Your task to perform on an android device: see tabs open on other devices in the chrome app Image 0: 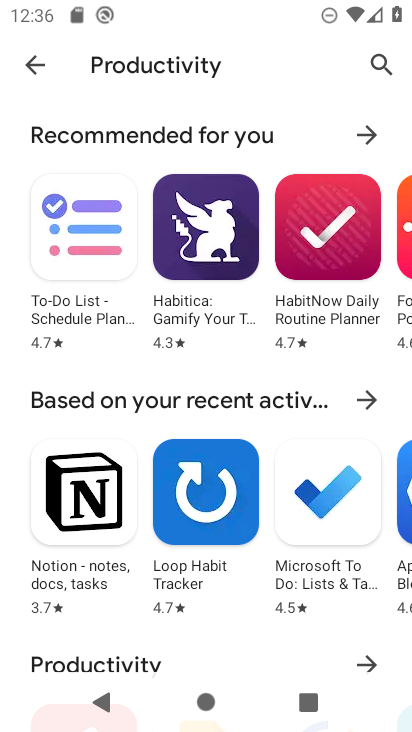
Step 0: task complete